Your task to perform on an android device: turn pop-ups off in chrome Image 0: 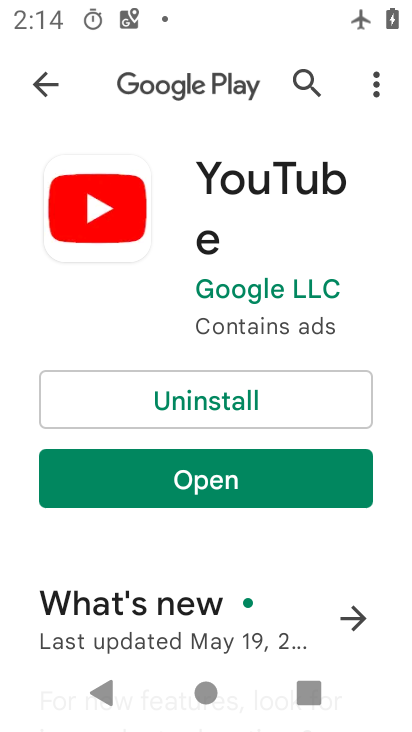
Step 0: press home button
Your task to perform on an android device: turn pop-ups off in chrome Image 1: 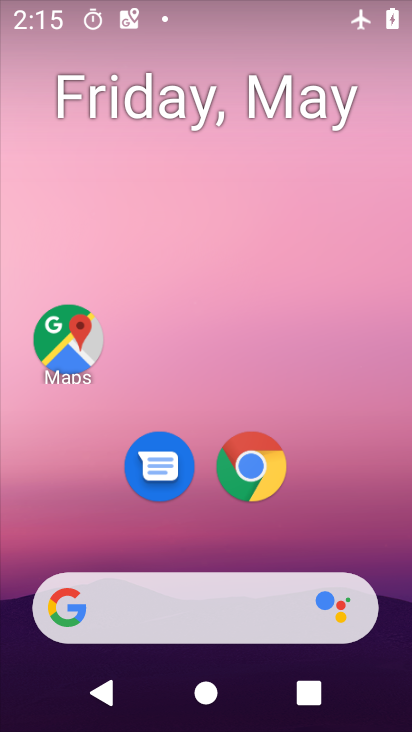
Step 1: drag from (337, 558) to (408, 166)
Your task to perform on an android device: turn pop-ups off in chrome Image 2: 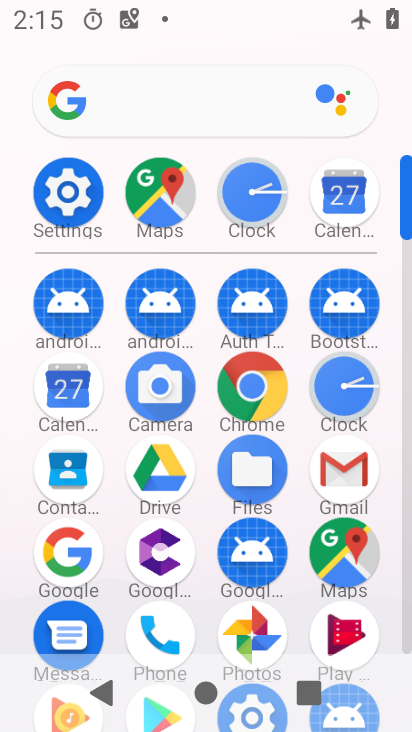
Step 2: click (262, 399)
Your task to perform on an android device: turn pop-ups off in chrome Image 3: 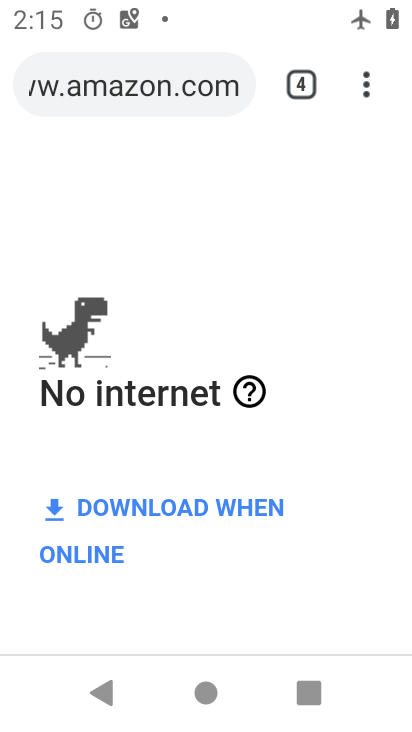
Step 3: drag from (367, 84) to (140, 508)
Your task to perform on an android device: turn pop-ups off in chrome Image 4: 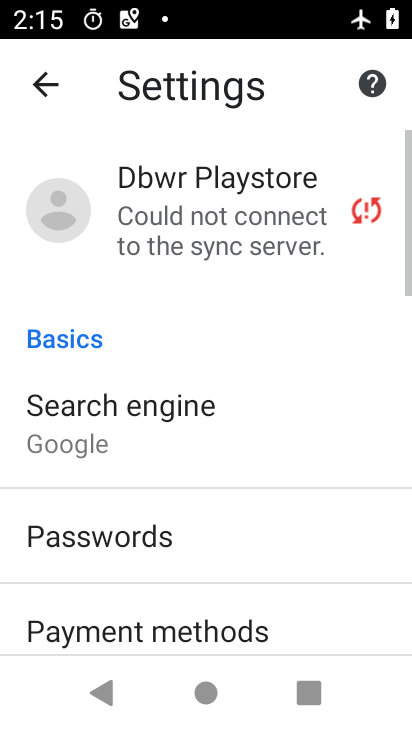
Step 4: drag from (170, 551) to (211, 134)
Your task to perform on an android device: turn pop-ups off in chrome Image 5: 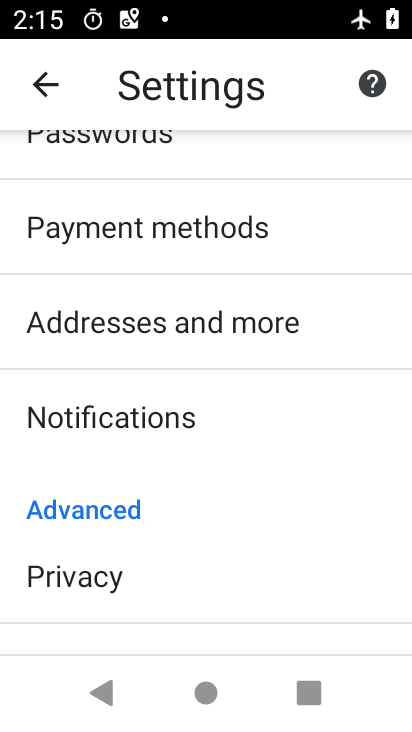
Step 5: drag from (193, 596) to (270, 150)
Your task to perform on an android device: turn pop-ups off in chrome Image 6: 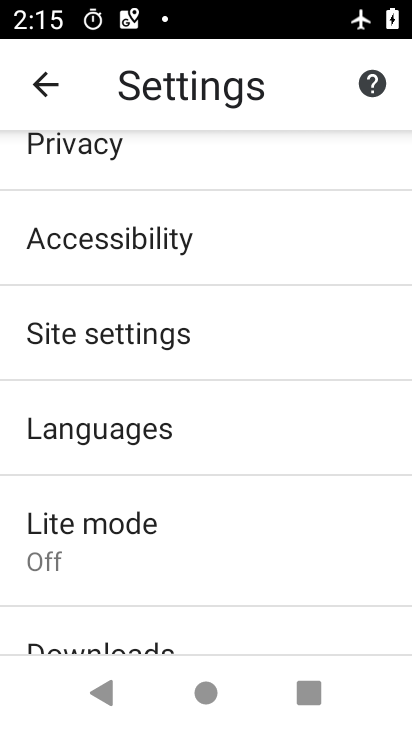
Step 6: click (178, 352)
Your task to perform on an android device: turn pop-ups off in chrome Image 7: 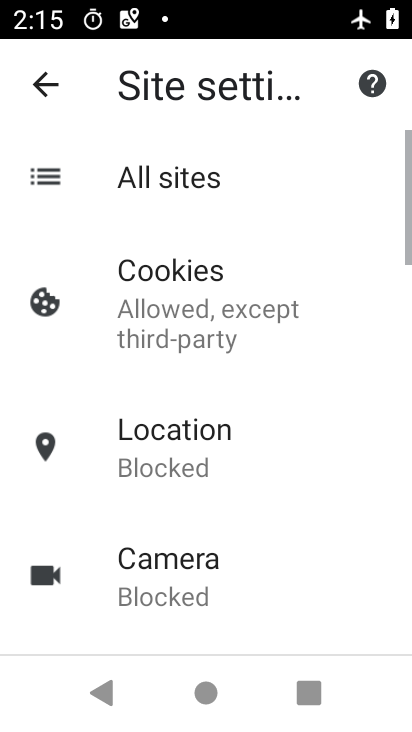
Step 7: drag from (226, 594) to (268, 208)
Your task to perform on an android device: turn pop-ups off in chrome Image 8: 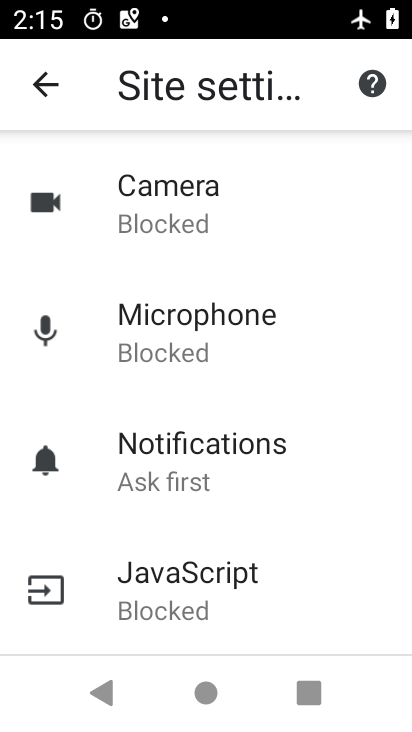
Step 8: drag from (200, 594) to (233, 247)
Your task to perform on an android device: turn pop-ups off in chrome Image 9: 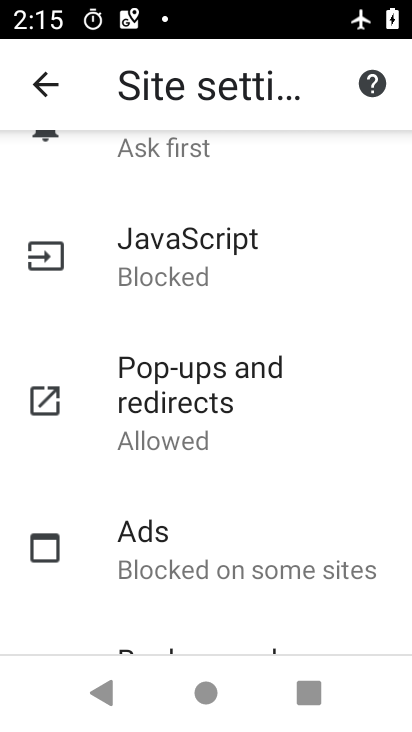
Step 9: click (201, 404)
Your task to perform on an android device: turn pop-ups off in chrome Image 10: 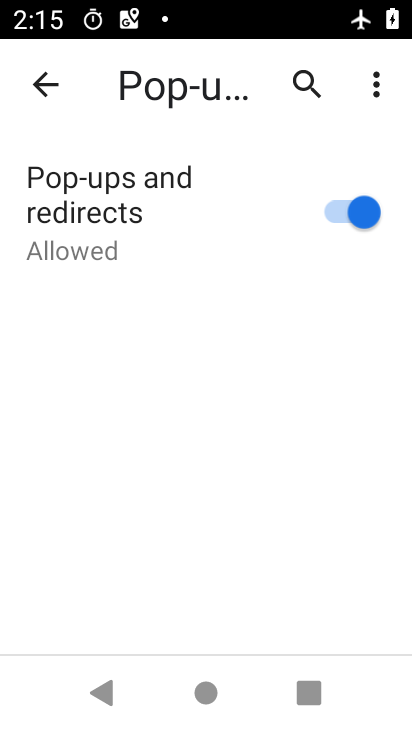
Step 10: click (338, 211)
Your task to perform on an android device: turn pop-ups off in chrome Image 11: 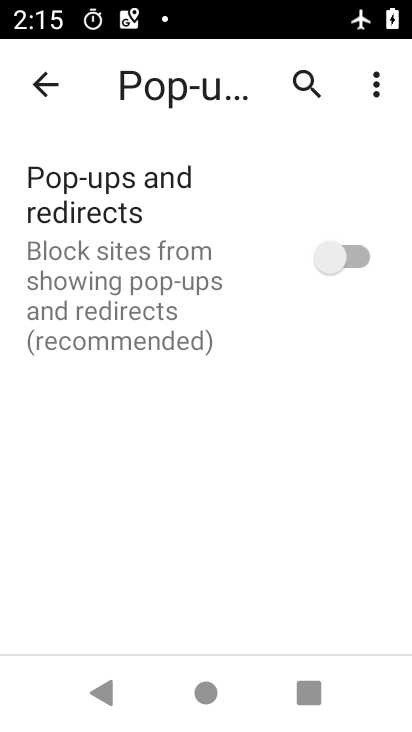
Step 11: task complete